Your task to perform on an android device: toggle improve location accuracy Image 0: 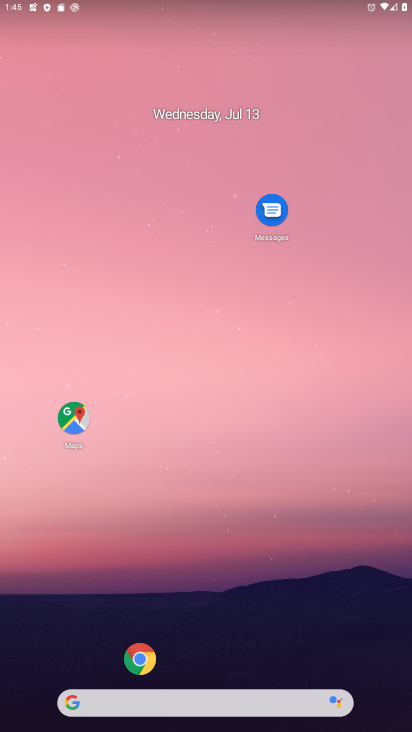
Step 0: drag from (240, 71) to (397, 661)
Your task to perform on an android device: toggle improve location accuracy Image 1: 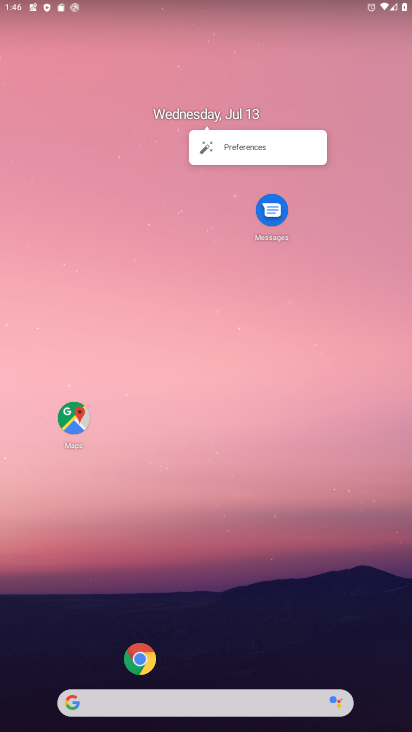
Step 1: drag from (36, 690) to (338, 29)
Your task to perform on an android device: toggle improve location accuracy Image 2: 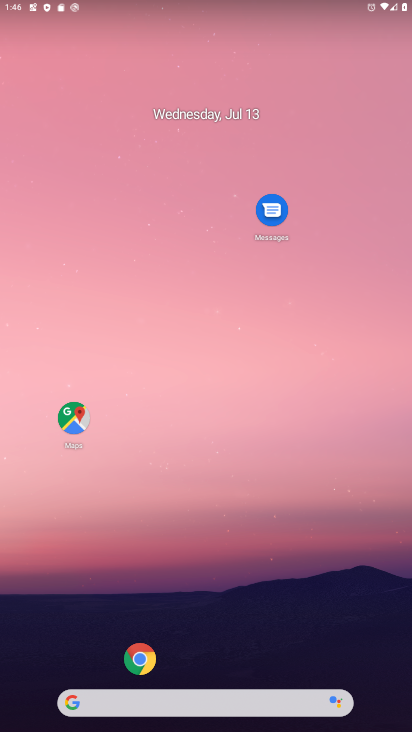
Step 2: drag from (68, 681) to (196, 559)
Your task to perform on an android device: toggle improve location accuracy Image 3: 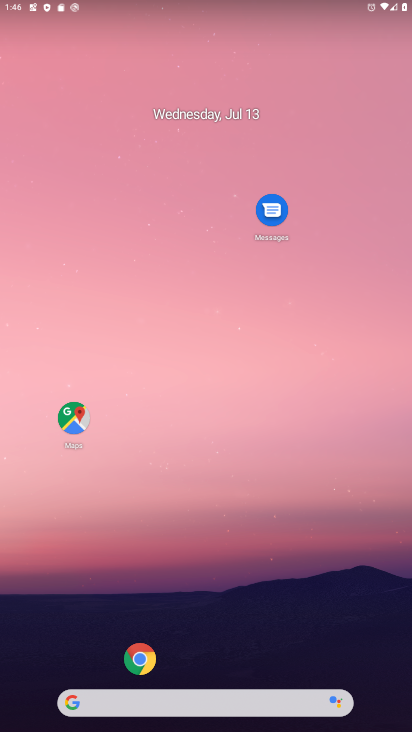
Step 3: drag from (35, 702) to (212, 8)
Your task to perform on an android device: toggle improve location accuracy Image 4: 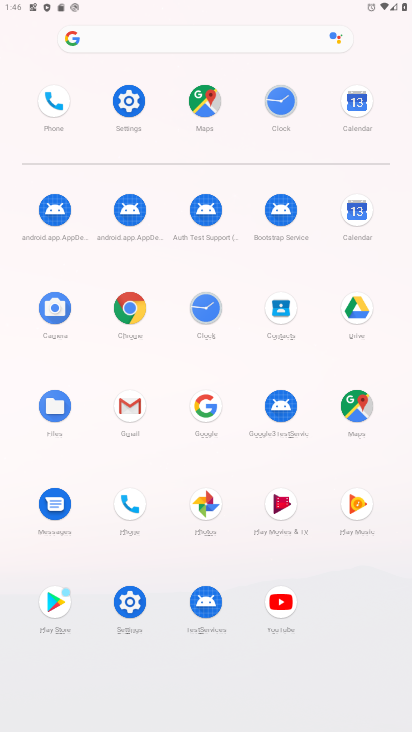
Step 4: click (129, 597)
Your task to perform on an android device: toggle improve location accuracy Image 5: 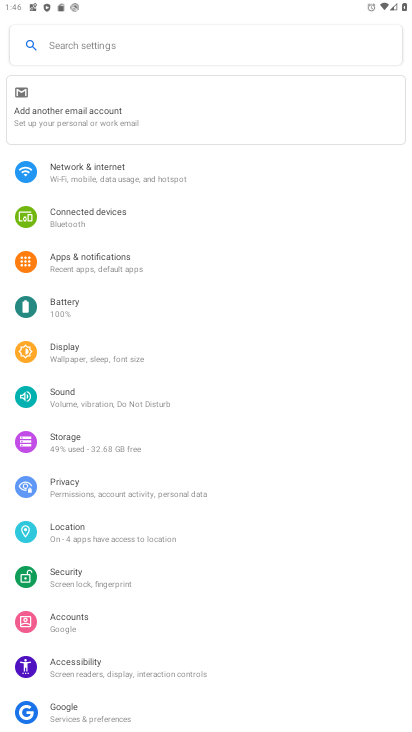
Step 5: click (90, 531)
Your task to perform on an android device: toggle improve location accuracy Image 6: 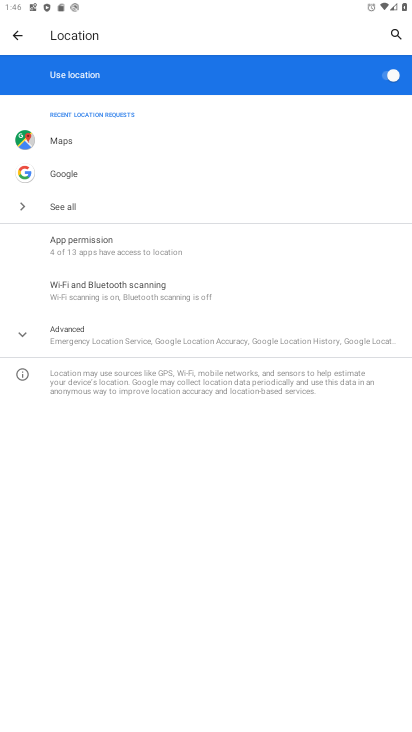
Step 6: click (134, 334)
Your task to perform on an android device: toggle improve location accuracy Image 7: 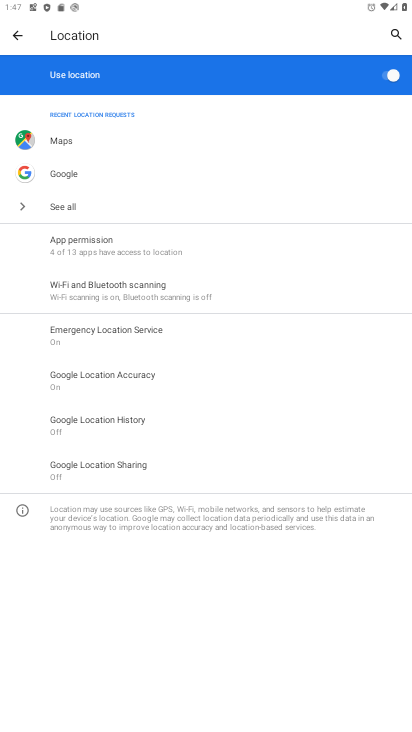
Step 7: task complete